Your task to perform on an android device: Open Maps and search for coffee Image 0: 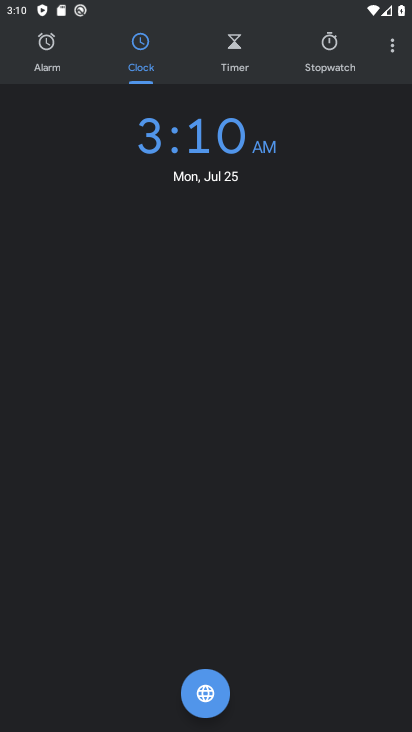
Step 0: press home button
Your task to perform on an android device: Open Maps and search for coffee Image 1: 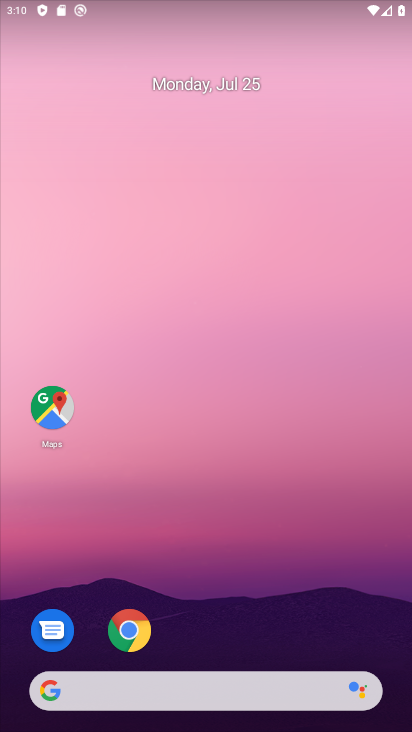
Step 1: click (47, 422)
Your task to perform on an android device: Open Maps and search for coffee Image 2: 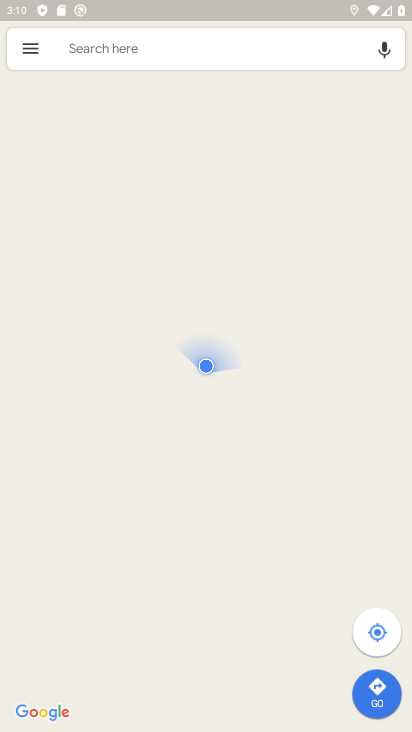
Step 2: click (164, 48)
Your task to perform on an android device: Open Maps and search for coffee Image 3: 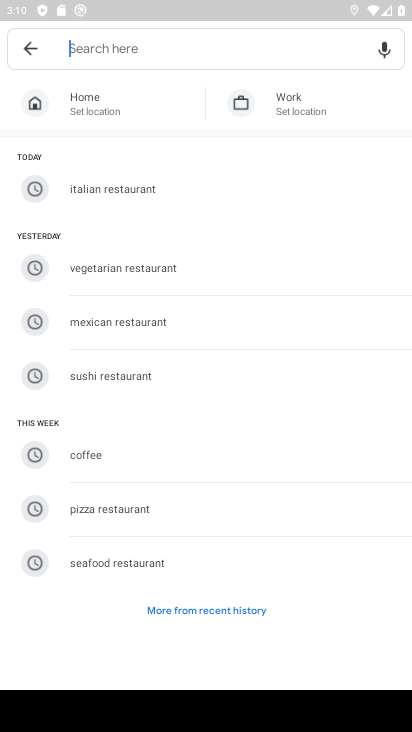
Step 3: click (152, 471)
Your task to perform on an android device: Open Maps and search for coffee Image 4: 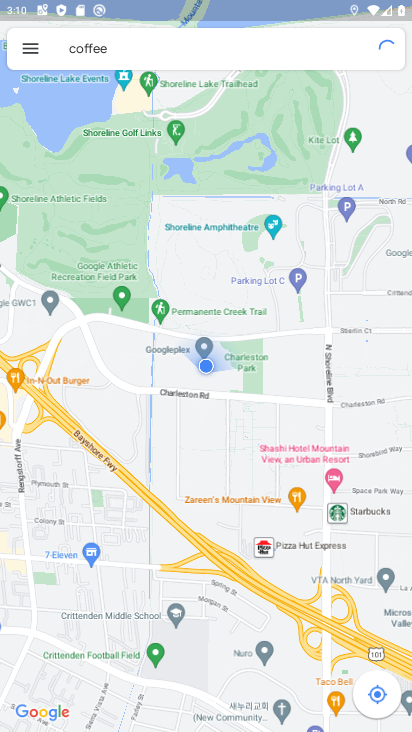
Step 4: task complete